Your task to perform on an android device: How do I get to the nearest Sprint Store? Image 0: 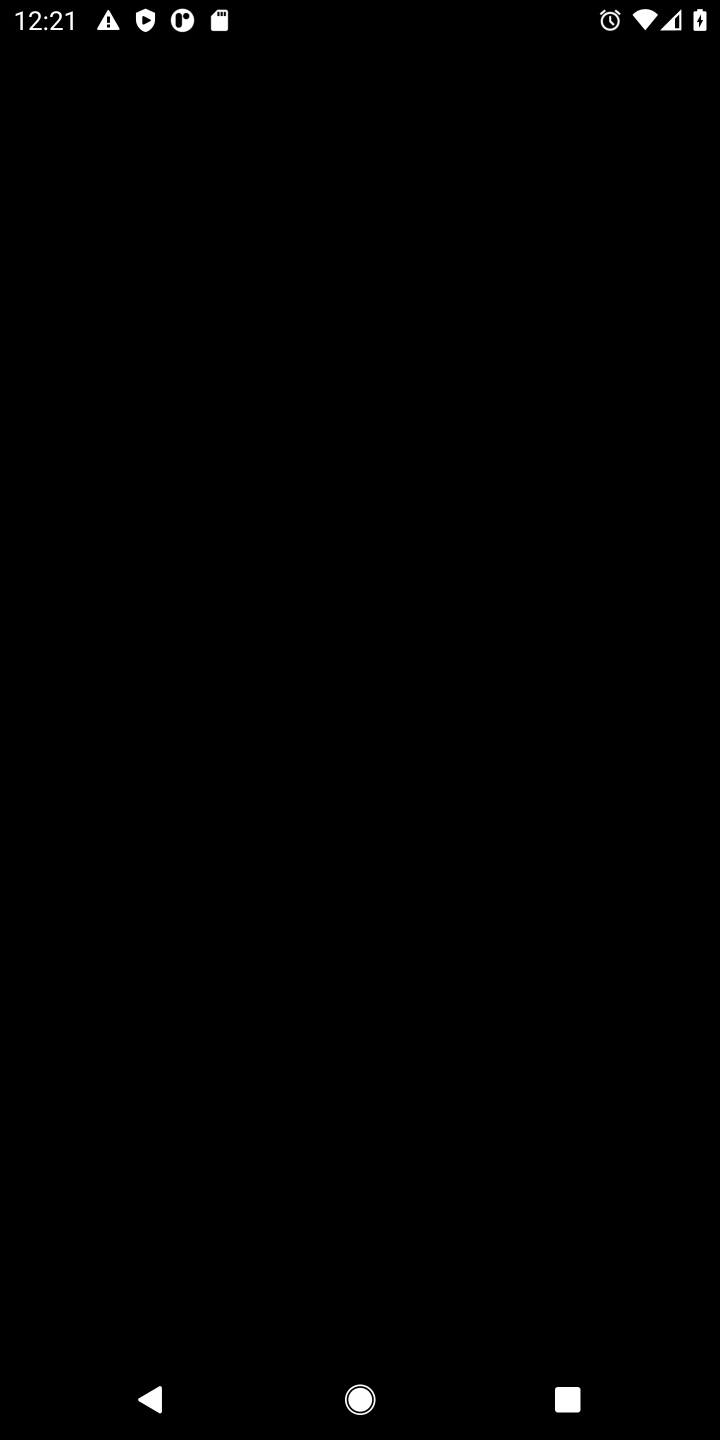
Step 0: press home button
Your task to perform on an android device: How do I get to the nearest Sprint Store? Image 1: 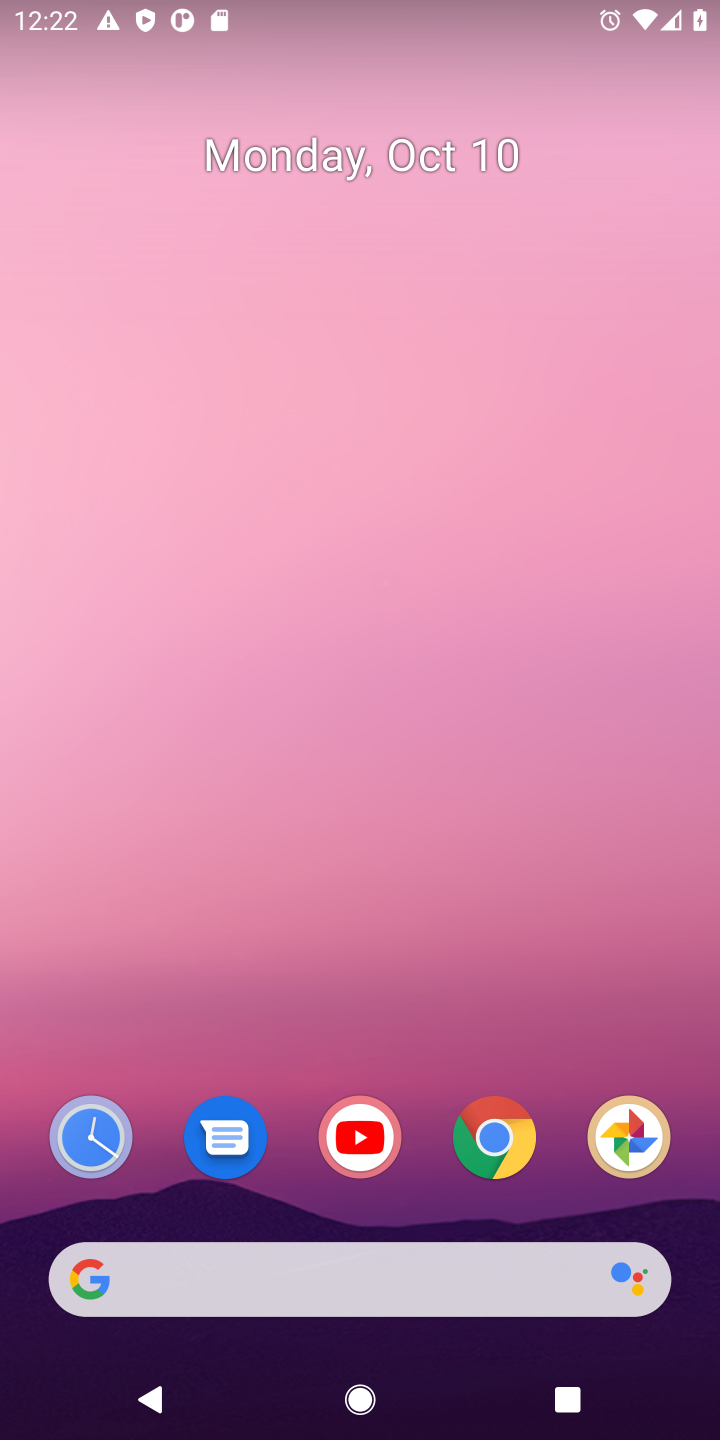
Step 1: drag from (444, 908) to (459, 12)
Your task to perform on an android device: How do I get to the nearest Sprint Store? Image 2: 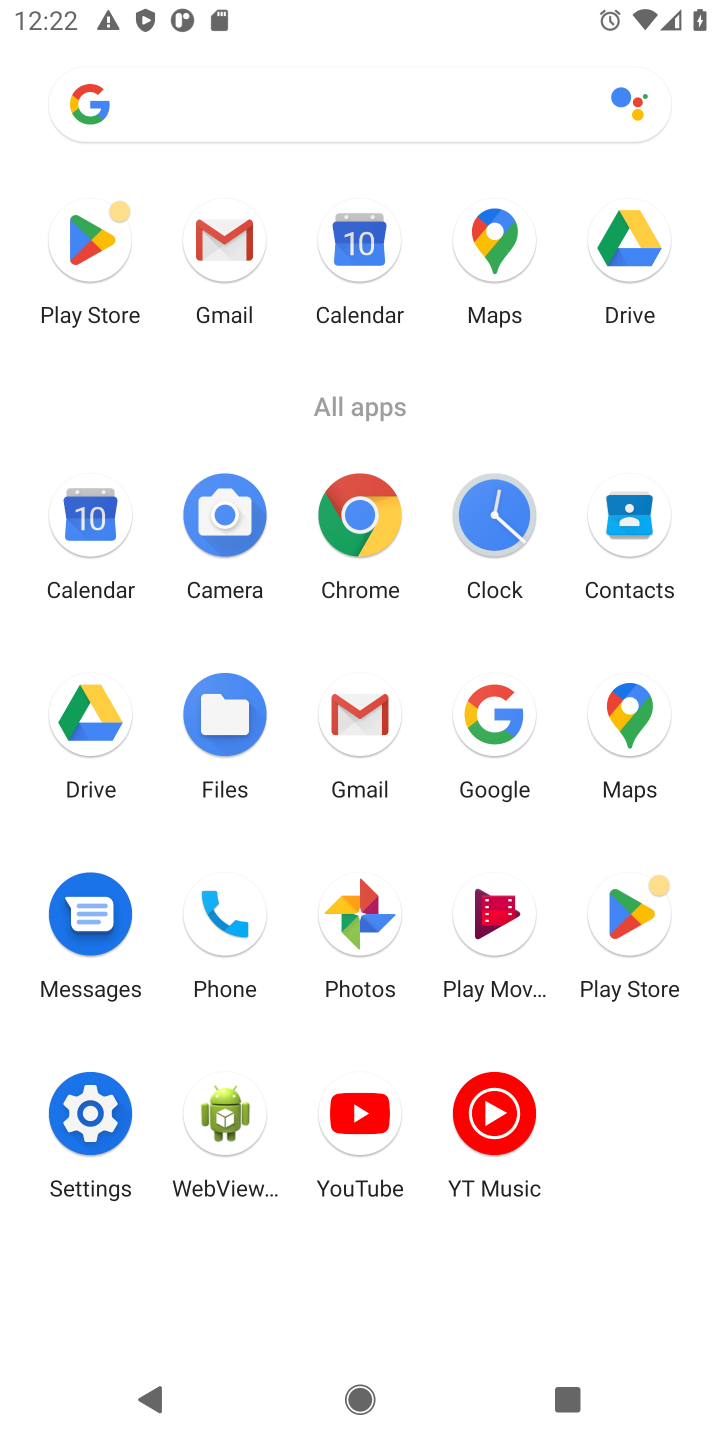
Step 2: click (342, 517)
Your task to perform on an android device: How do I get to the nearest Sprint Store? Image 3: 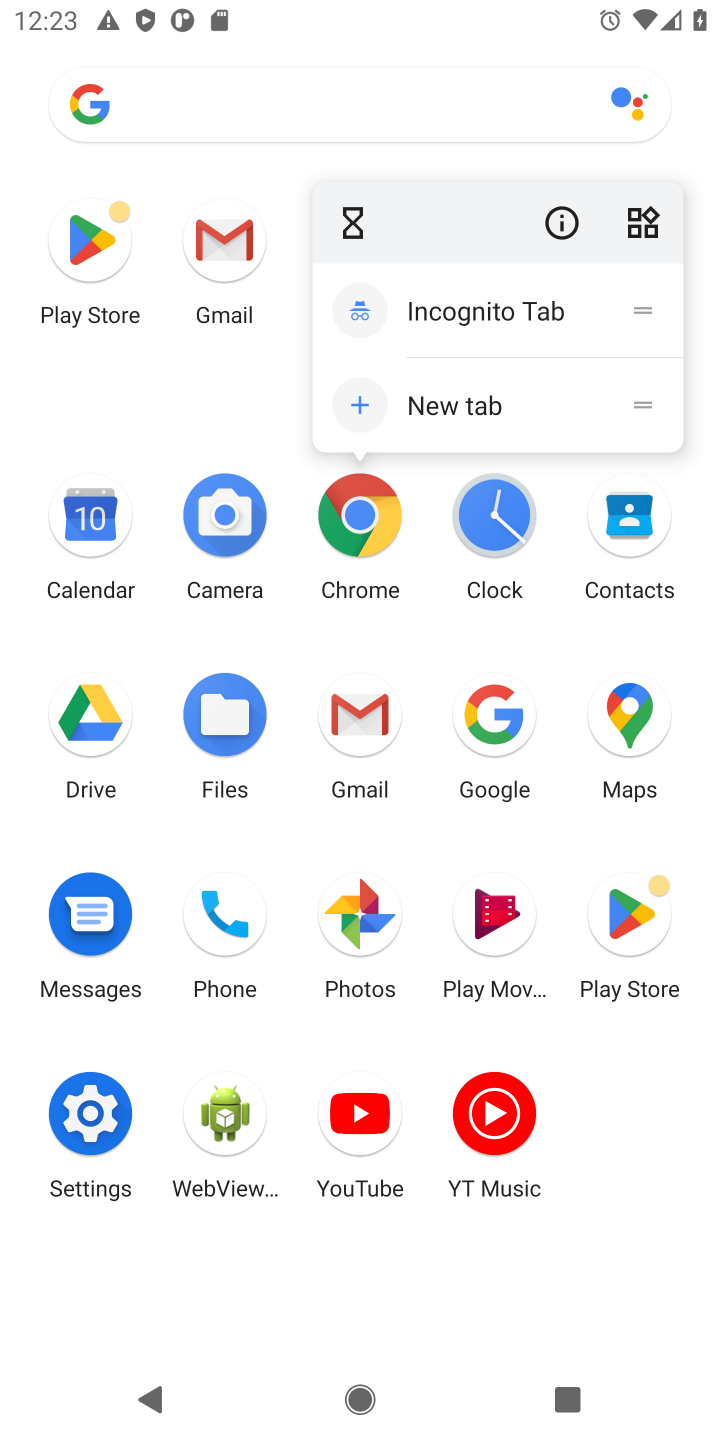
Step 3: click (363, 521)
Your task to perform on an android device: How do I get to the nearest Sprint Store? Image 4: 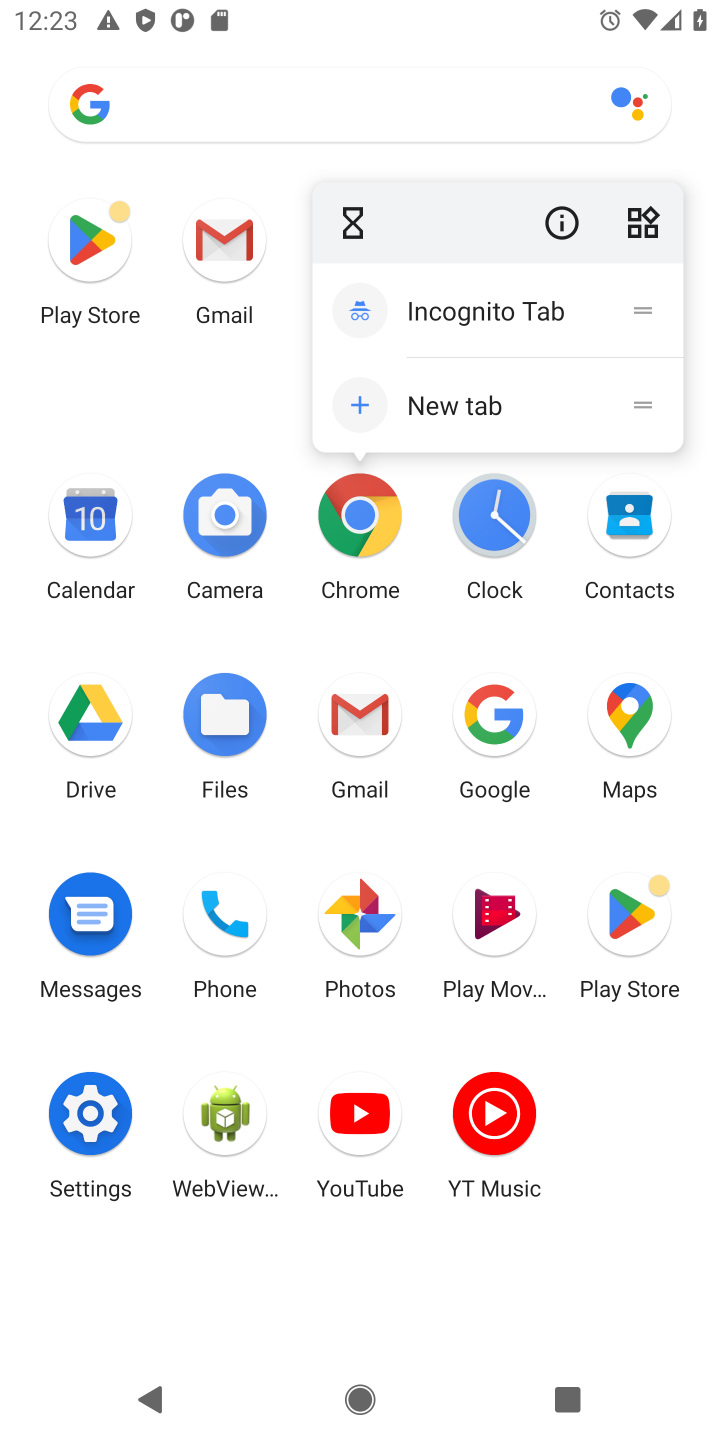
Step 4: click (363, 511)
Your task to perform on an android device: How do I get to the nearest Sprint Store? Image 5: 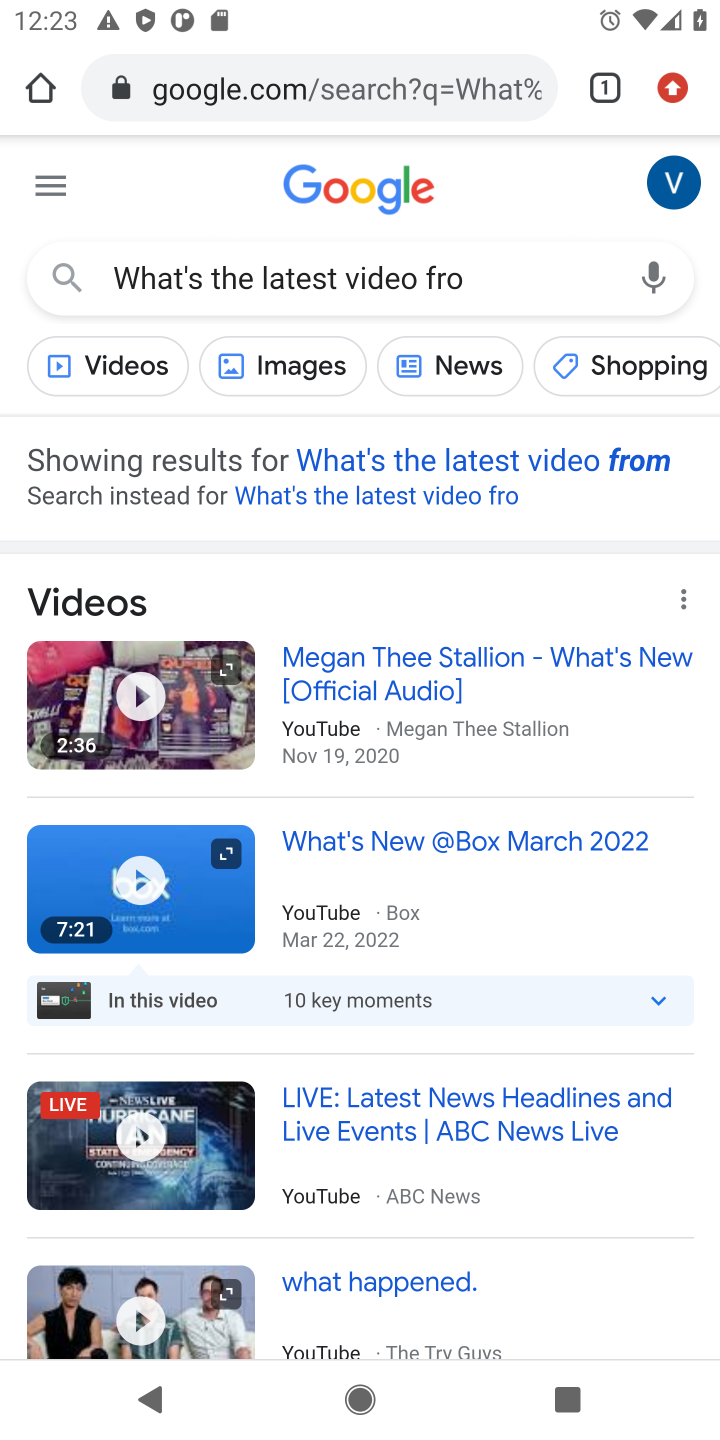
Step 5: click (425, 79)
Your task to perform on an android device: How do I get to the nearest Sprint Store? Image 6: 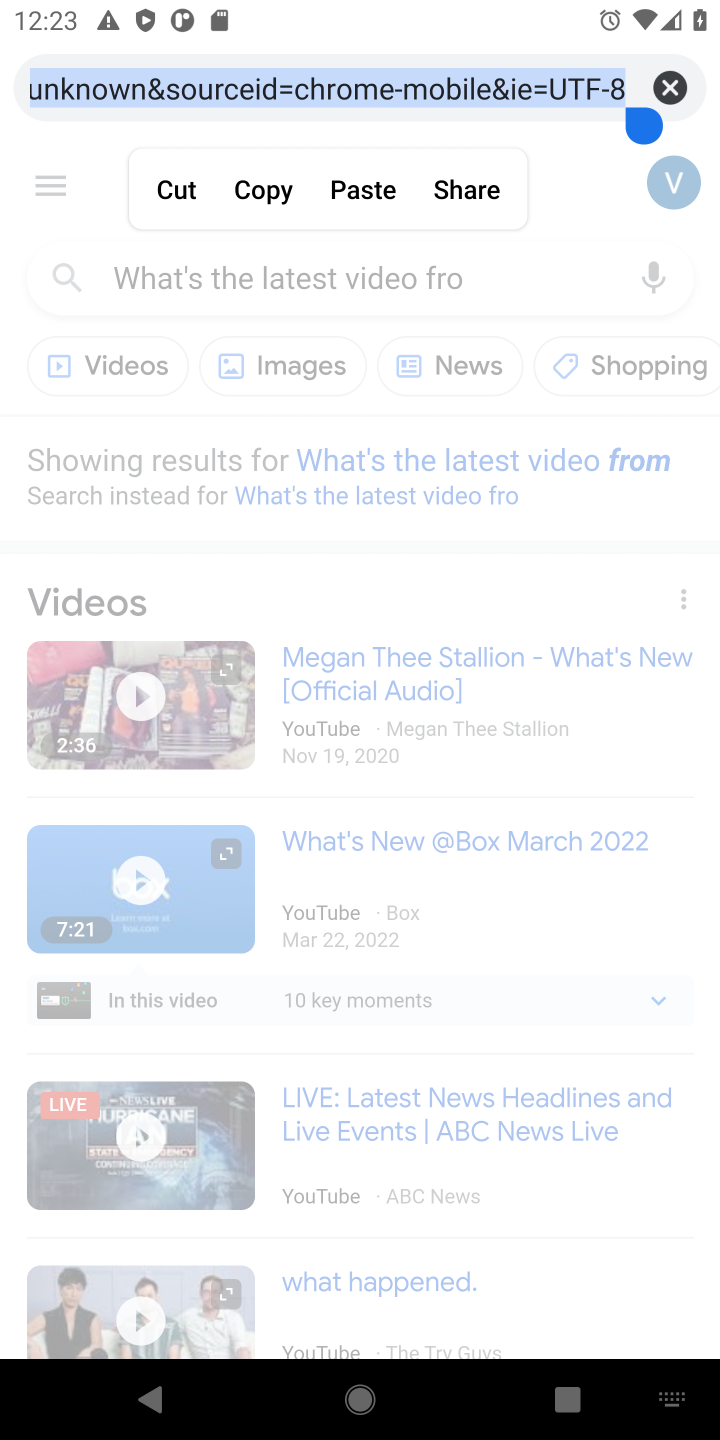
Step 6: click (670, 67)
Your task to perform on an android device: How do I get to the nearest Sprint Store? Image 7: 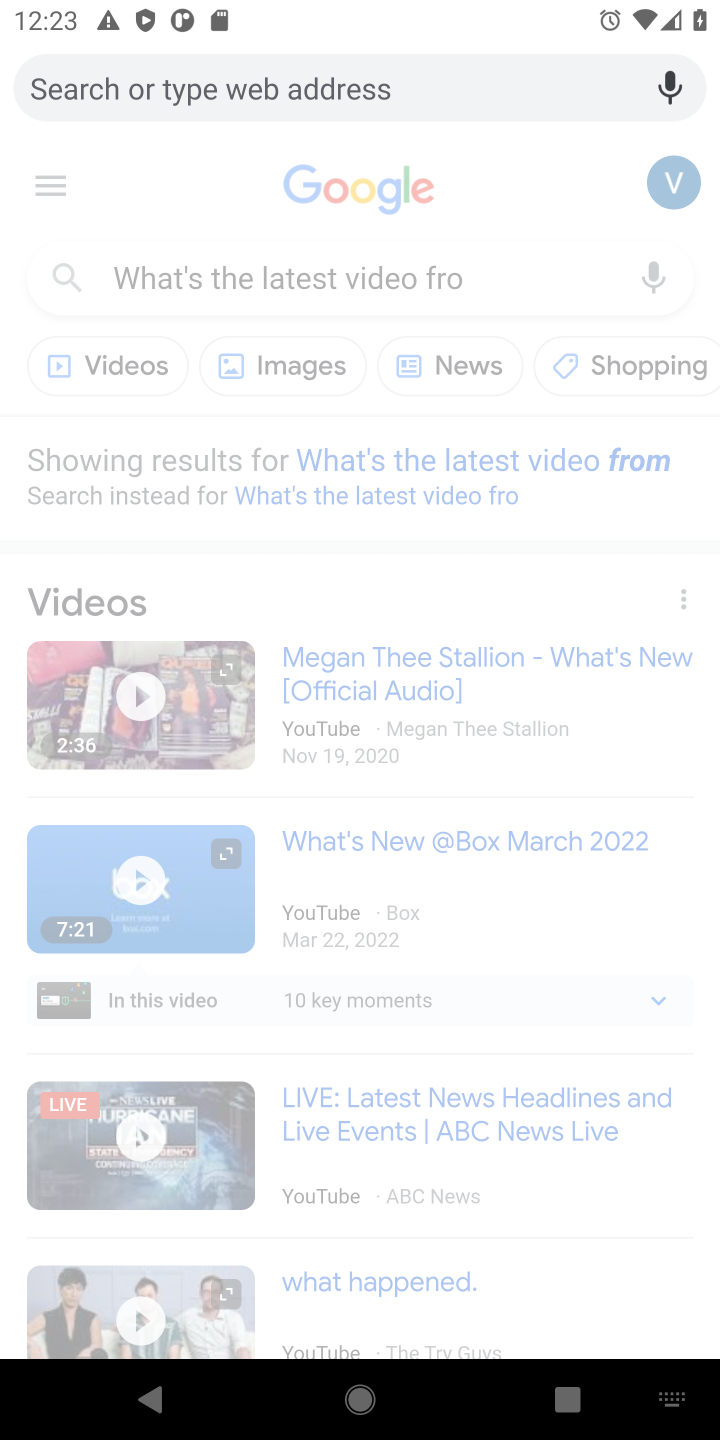
Step 7: type "How do I get to the nearest Sprint Store?"
Your task to perform on an android device: How do I get to the nearest Sprint Store? Image 8: 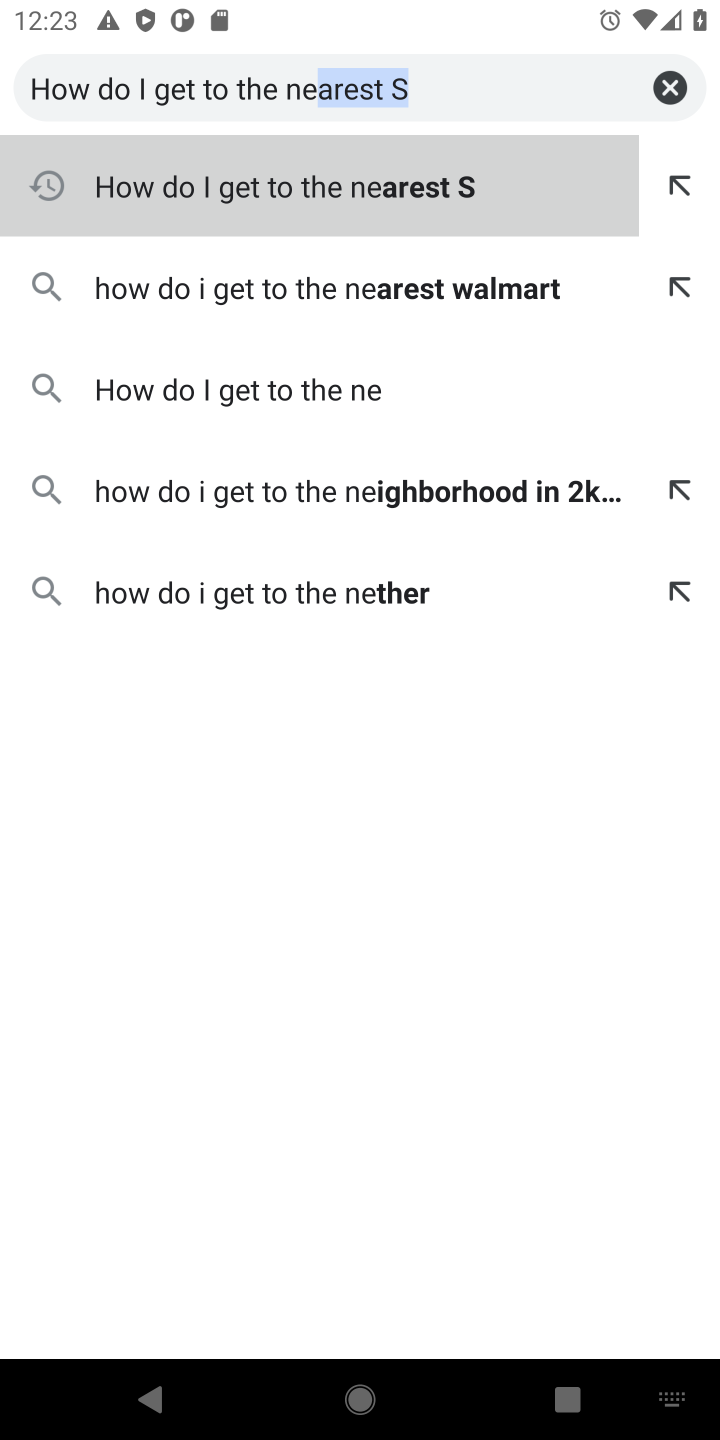
Step 8: click (441, 201)
Your task to perform on an android device: How do I get to the nearest Sprint Store? Image 9: 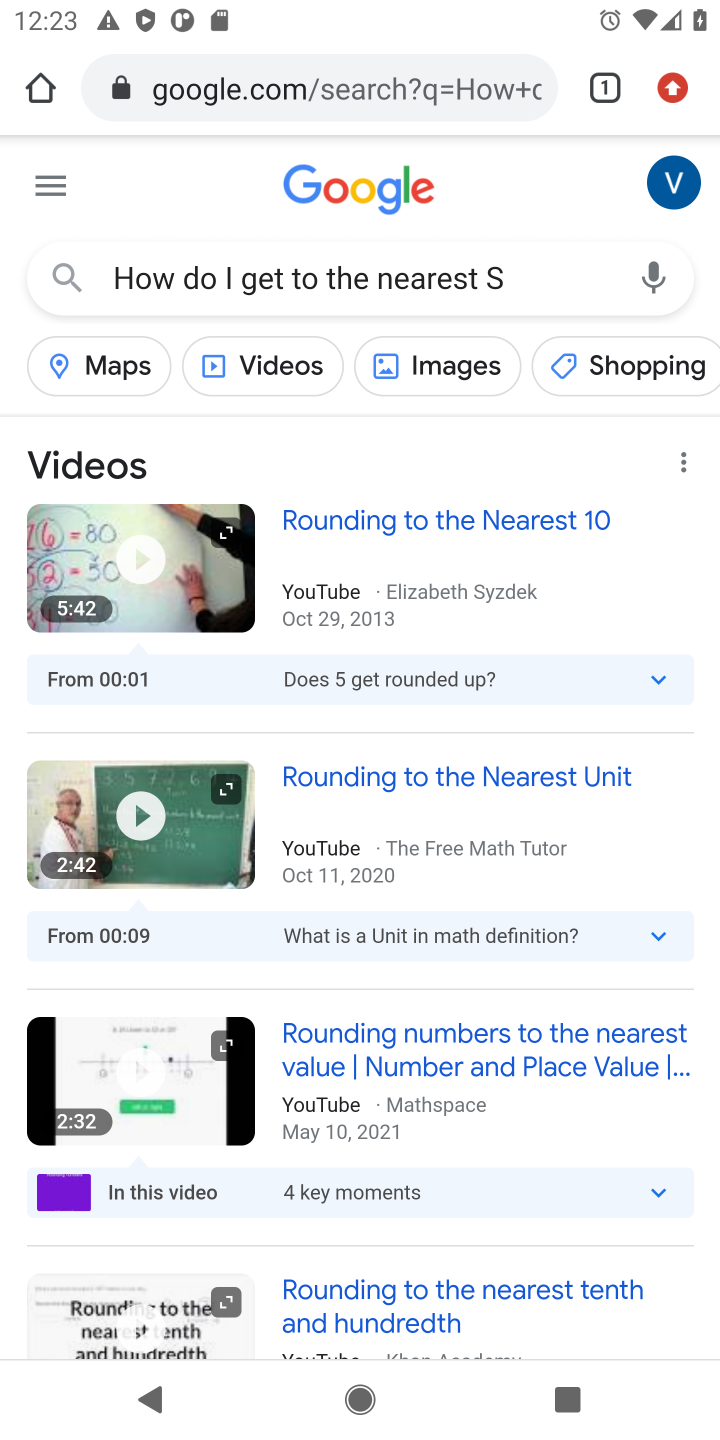
Step 9: task complete